Your task to perform on an android device: check storage Image 0: 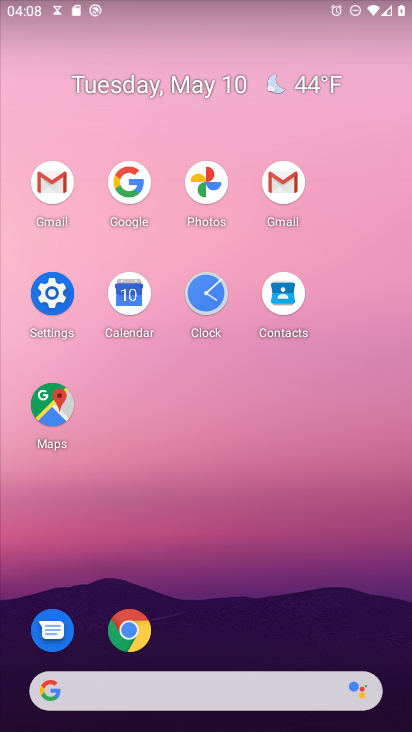
Step 0: click (42, 289)
Your task to perform on an android device: check storage Image 1: 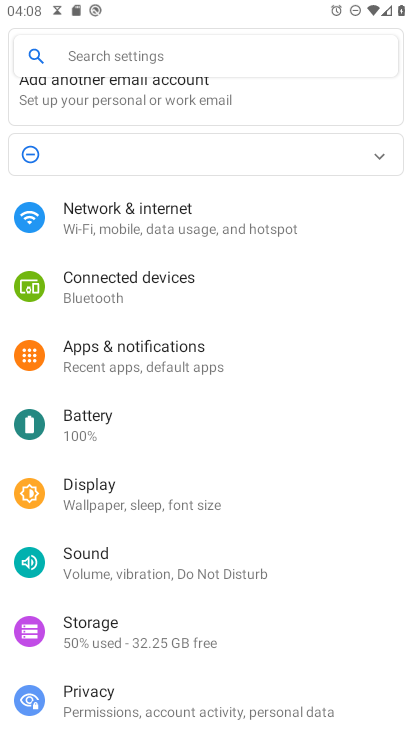
Step 1: click (164, 635)
Your task to perform on an android device: check storage Image 2: 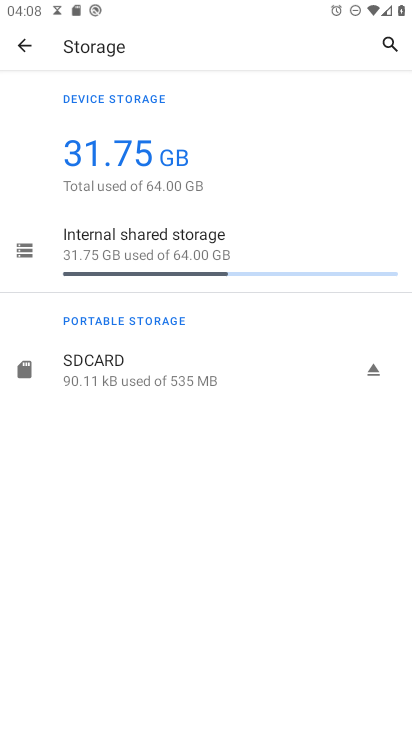
Step 2: task complete